Your task to perform on an android device: Open Maps and search for coffee Image 0: 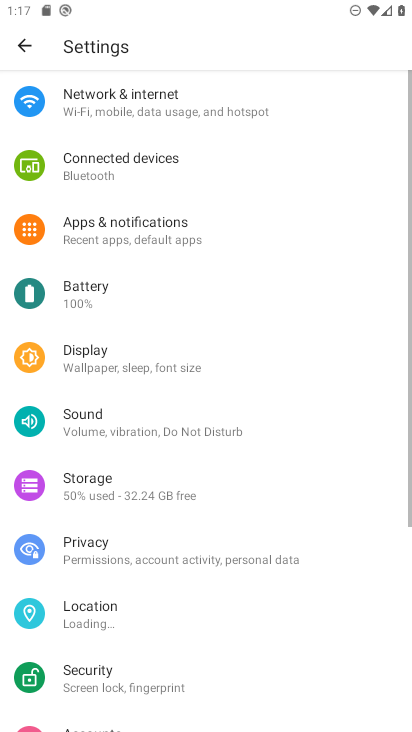
Step 0: press home button
Your task to perform on an android device: Open Maps and search for coffee Image 1: 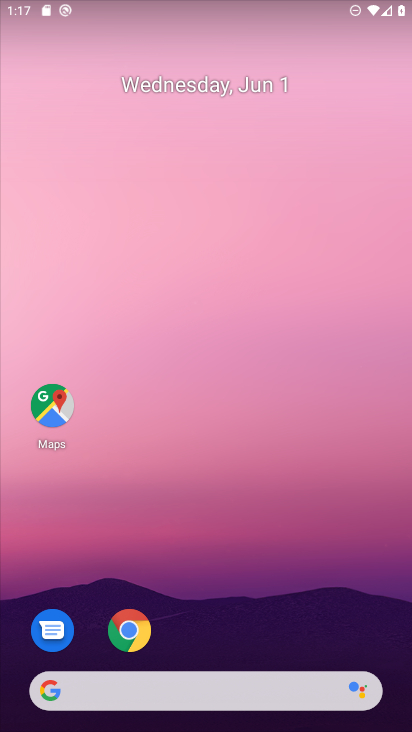
Step 1: click (51, 409)
Your task to perform on an android device: Open Maps and search for coffee Image 2: 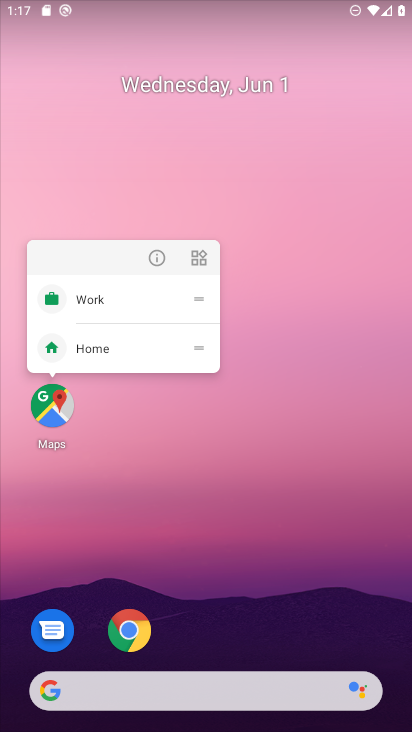
Step 2: click (51, 410)
Your task to perform on an android device: Open Maps and search for coffee Image 3: 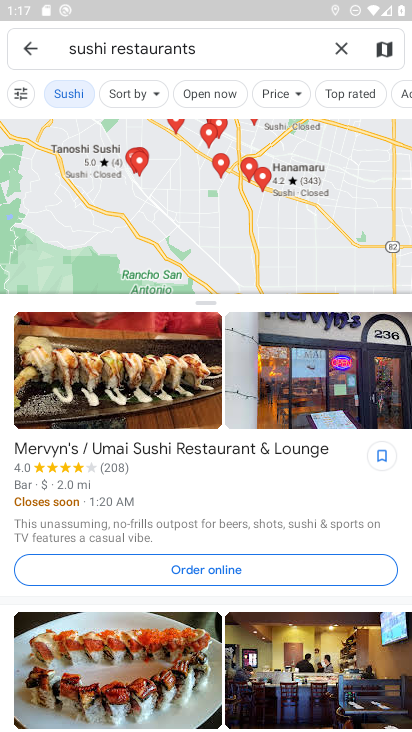
Step 3: click (341, 49)
Your task to perform on an android device: Open Maps and search for coffee Image 4: 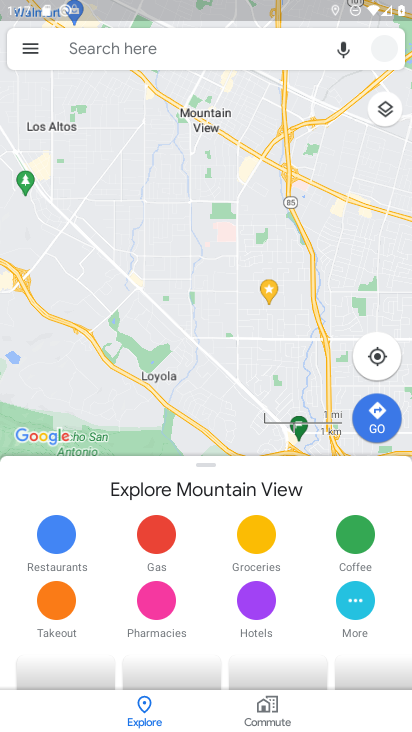
Step 4: click (192, 46)
Your task to perform on an android device: Open Maps and search for coffee Image 5: 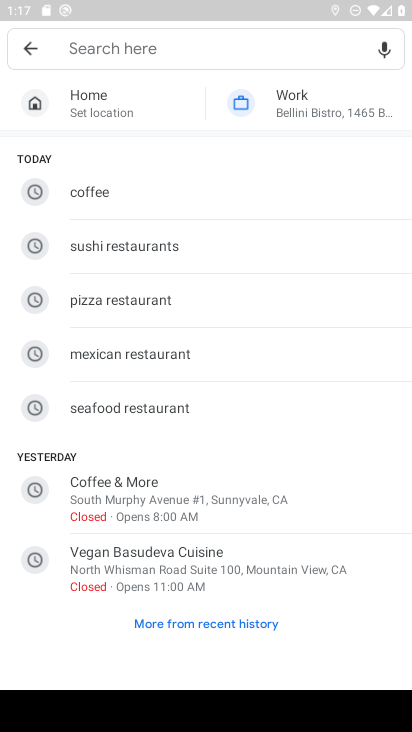
Step 5: click (96, 196)
Your task to perform on an android device: Open Maps and search for coffee Image 6: 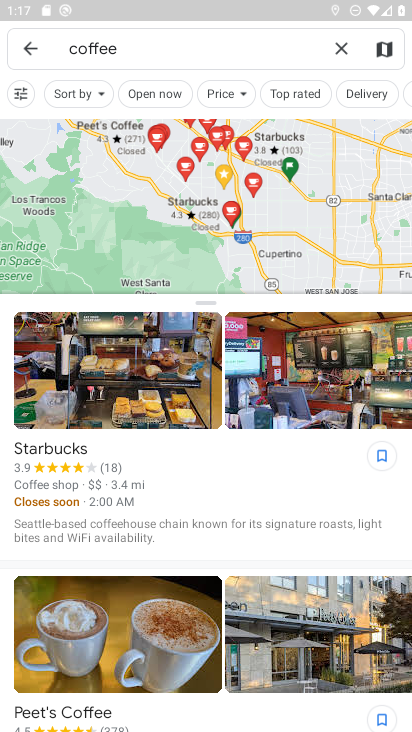
Step 6: task complete